Your task to perform on an android device: Go to display settings Image 0: 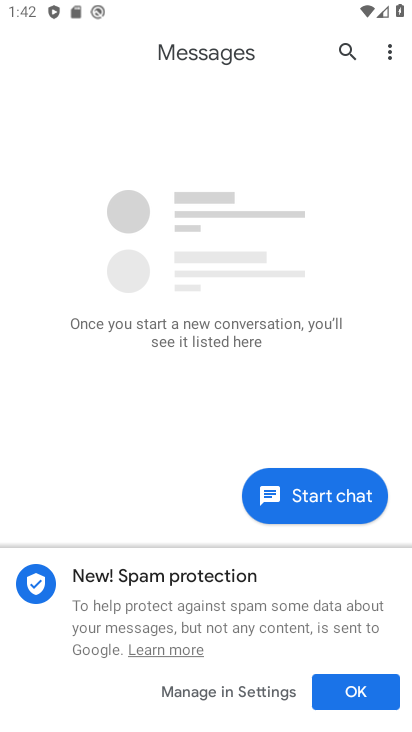
Step 0: press home button
Your task to perform on an android device: Go to display settings Image 1: 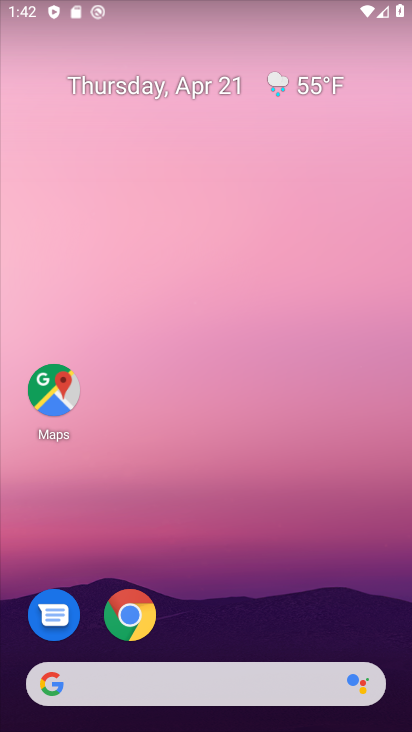
Step 1: drag from (205, 663) to (255, 277)
Your task to perform on an android device: Go to display settings Image 2: 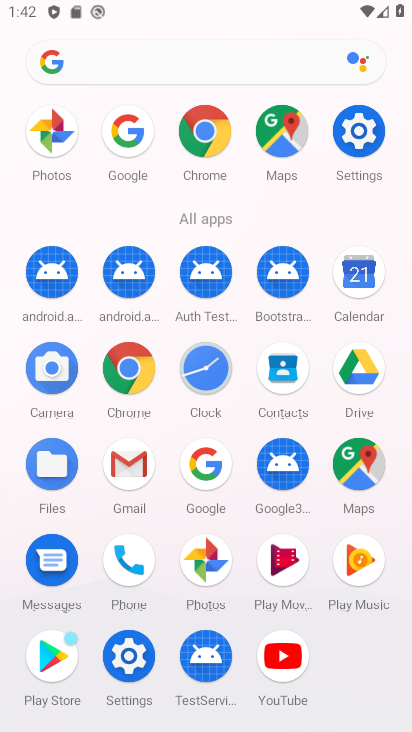
Step 2: click (365, 128)
Your task to perform on an android device: Go to display settings Image 3: 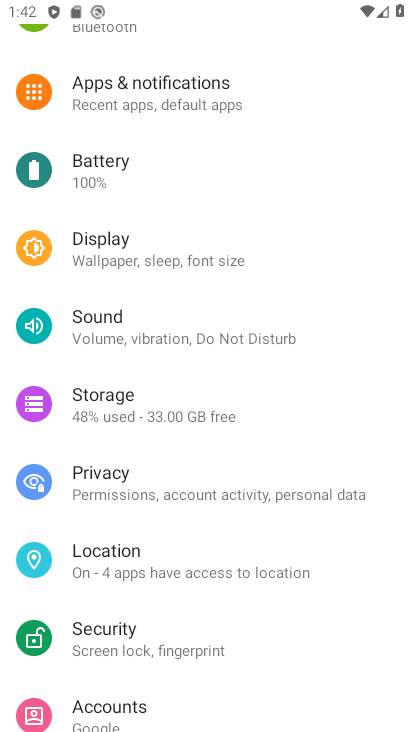
Step 3: click (103, 253)
Your task to perform on an android device: Go to display settings Image 4: 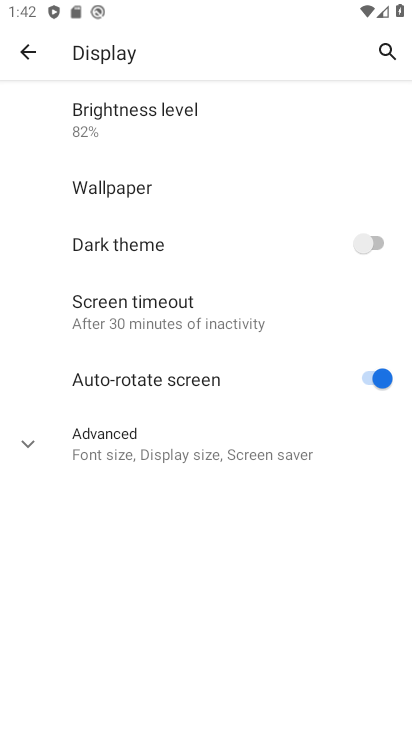
Step 4: click (109, 447)
Your task to perform on an android device: Go to display settings Image 5: 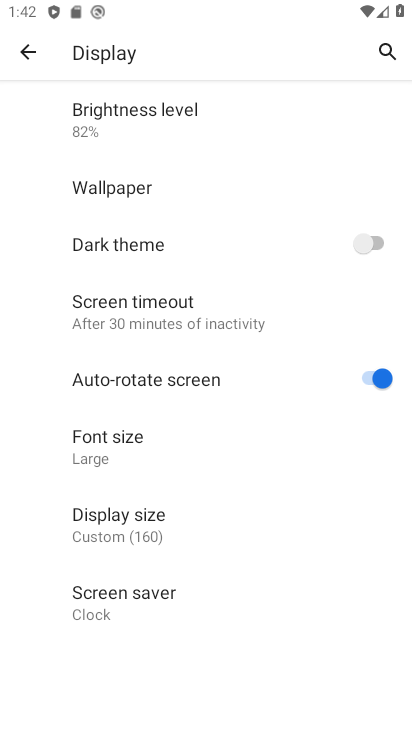
Step 5: task complete